Your task to perform on an android device: turn pop-ups on in chrome Image 0: 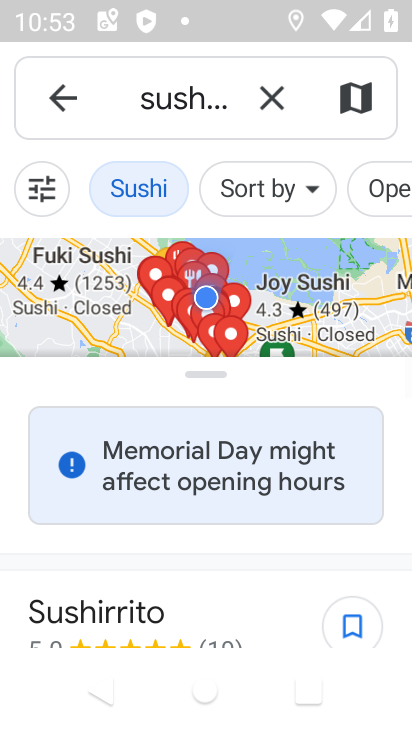
Step 0: press back button
Your task to perform on an android device: turn pop-ups on in chrome Image 1: 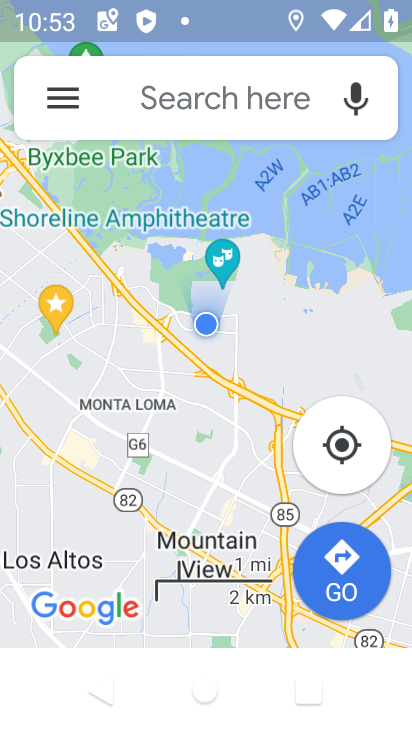
Step 1: press back button
Your task to perform on an android device: turn pop-ups on in chrome Image 2: 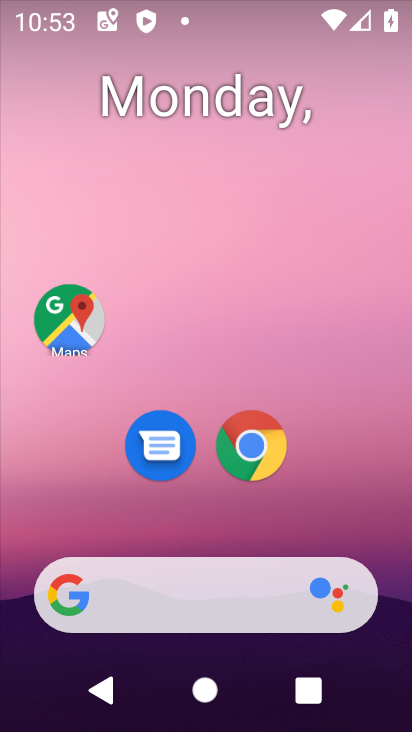
Step 2: click (255, 435)
Your task to perform on an android device: turn pop-ups on in chrome Image 3: 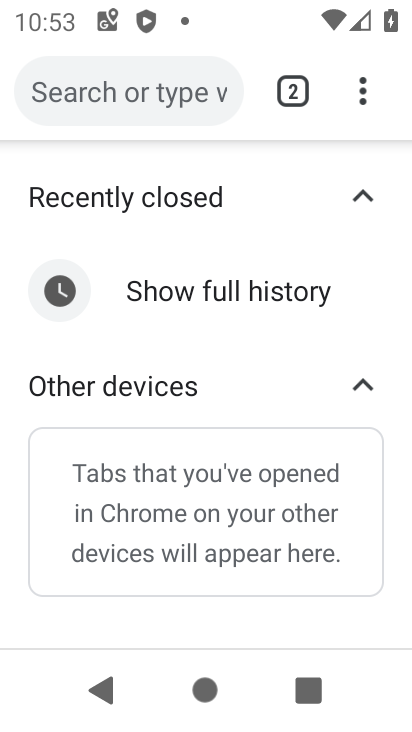
Step 3: drag from (358, 84) to (112, 455)
Your task to perform on an android device: turn pop-ups on in chrome Image 4: 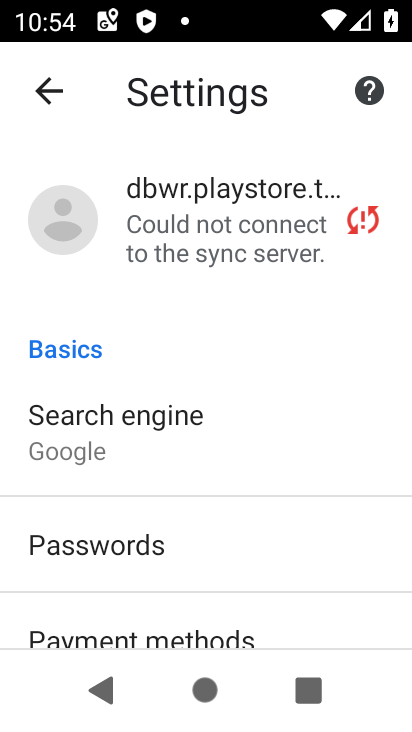
Step 4: drag from (224, 603) to (295, 116)
Your task to perform on an android device: turn pop-ups on in chrome Image 5: 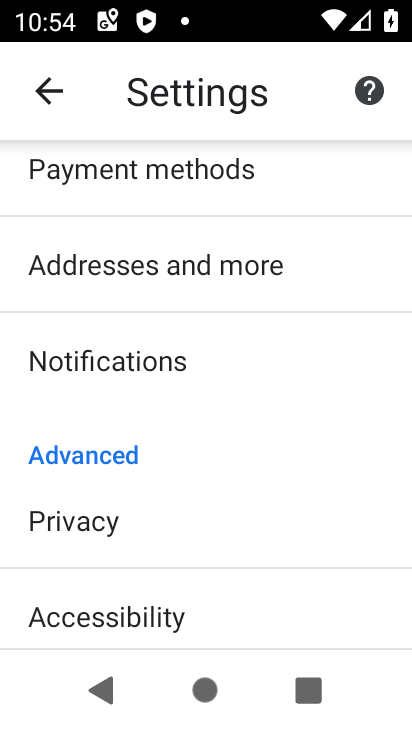
Step 5: drag from (188, 595) to (283, 165)
Your task to perform on an android device: turn pop-ups on in chrome Image 6: 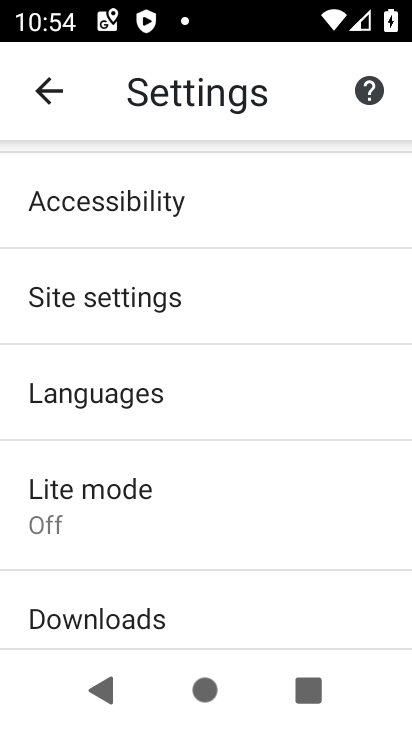
Step 6: click (122, 268)
Your task to perform on an android device: turn pop-ups on in chrome Image 7: 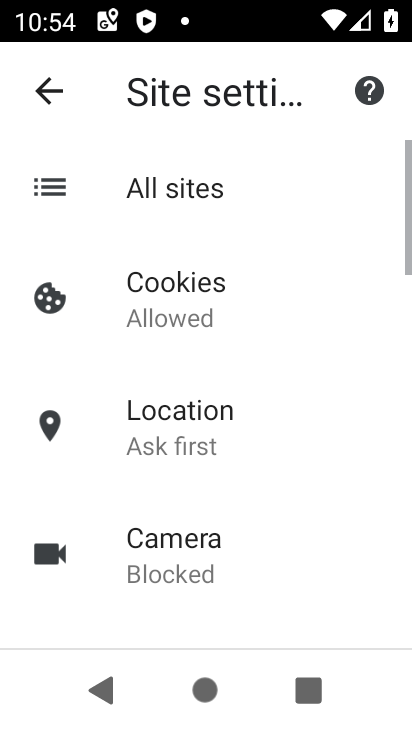
Step 7: drag from (207, 553) to (281, 139)
Your task to perform on an android device: turn pop-ups on in chrome Image 8: 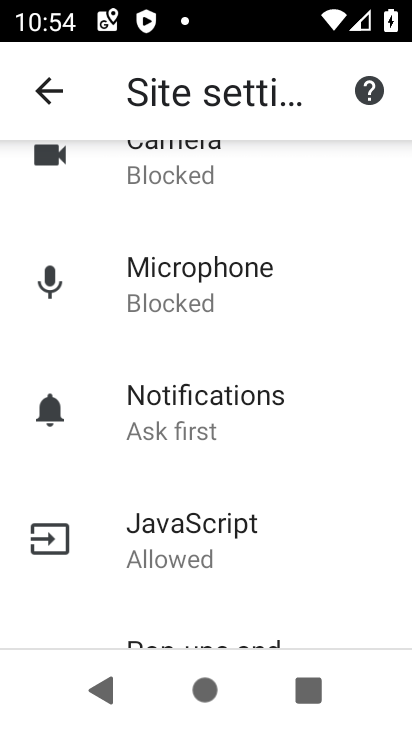
Step 8: drag from (167, 572) to (265, 125)
Your task to perform on an android device: turn pop-ups on in chrome Image 9: 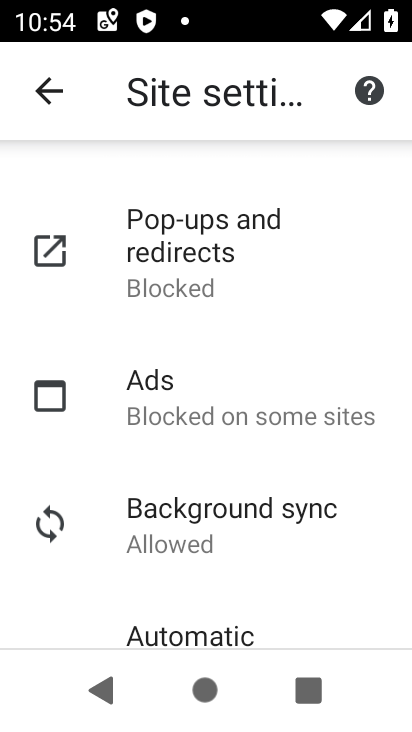
Step 9: click (196, 246)
Your task to perform on an android device: turn pop-ups on in chrome Image 10: 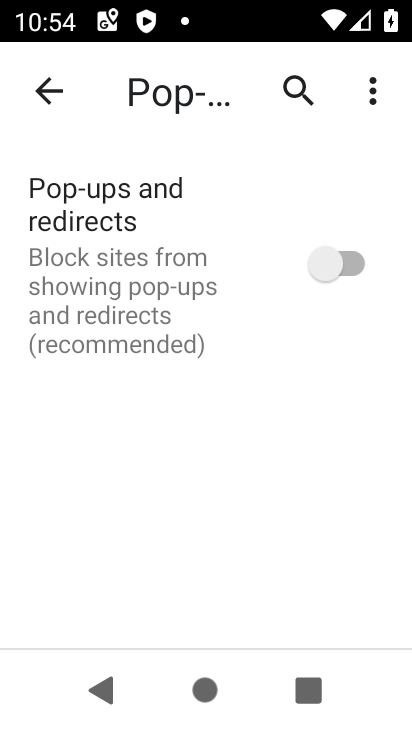
Step 10: click (338, 266)
Your task to perform on an android device: turn pop-ups on in chrome Image 11: 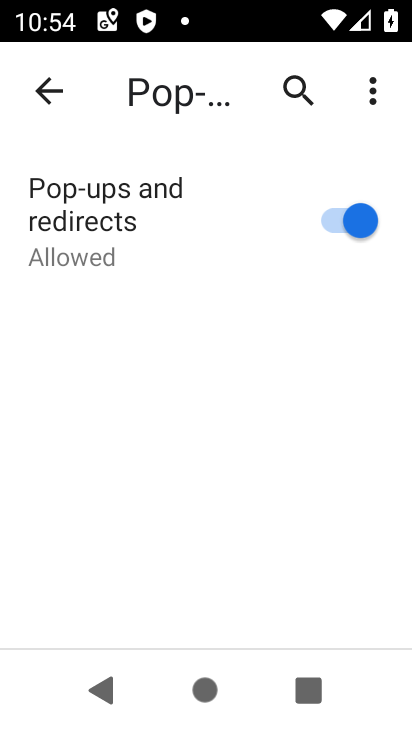
Step 11: task complete